Your task to perform on an android device: read, delete, or share a saved page in the chrome app Image 0: 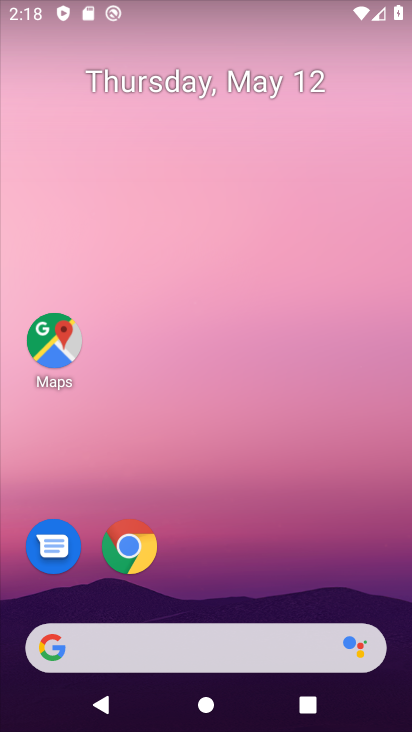
Step 0: click (141, 562)
Your task to perform on an android device: read, delete, or share a saved page in the chrome app Image 1: 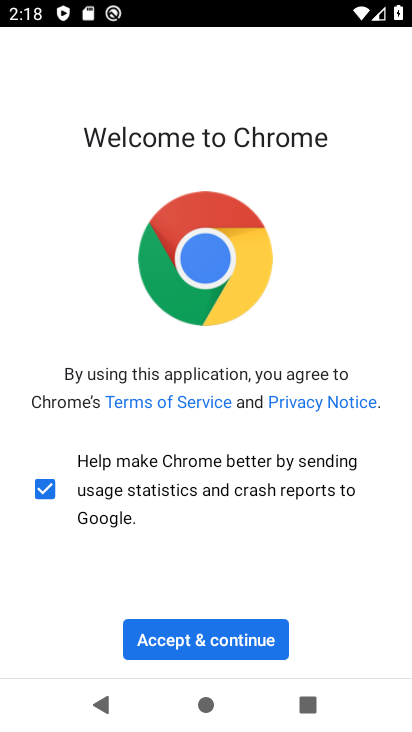
Step 1: click (259, 632)
Your task to perform on an android device: read, delete, or share a saved page in the chrome app Image 2: 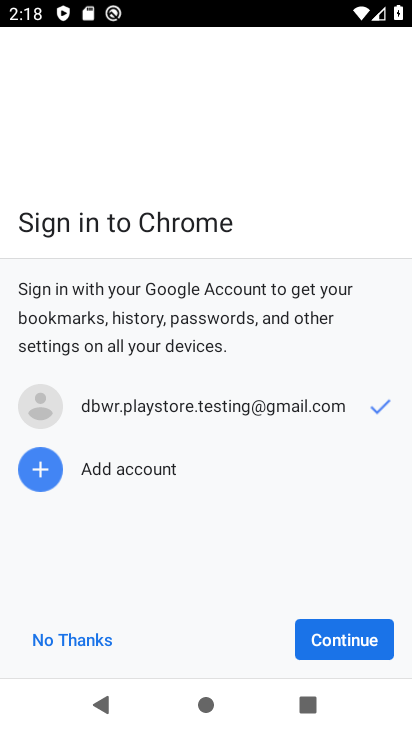
Step 2: click (334, 644)
Your task to perform on an android device: read, delete, or share a saved page in the chrome app Image 3: 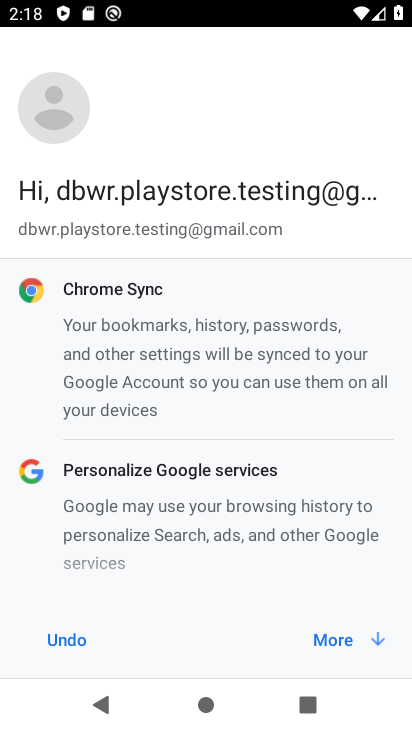
Step 3: click (334, 644)
Your task to perform on an android device: read, delete, or share a saved page in the chrome app Image 4: 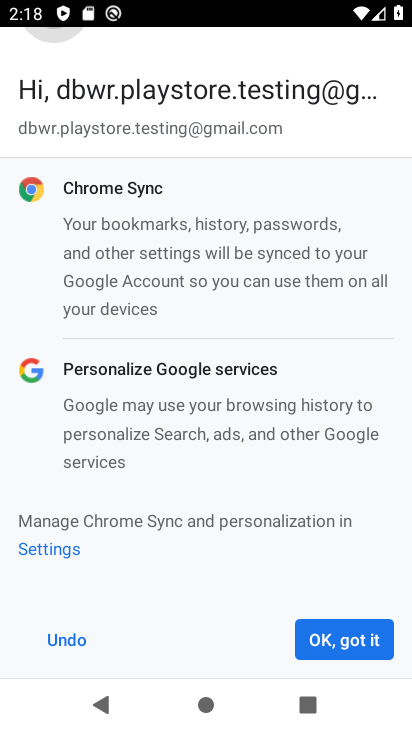
Step 4: click (334, 644)
Your task to perform on an android device: read, delete, or share a saved page in the chrome app Image 5: 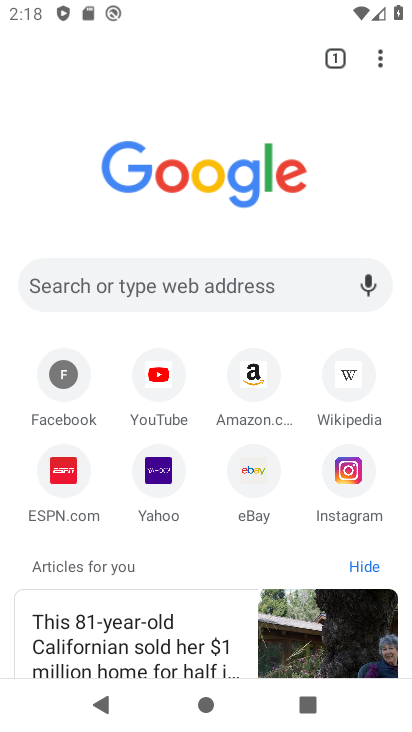
Step 5: drag from (393, 54) to (282, 378)
Your task to perform on an android device: read, delete, or share a saved page in the chrome app Image 6: 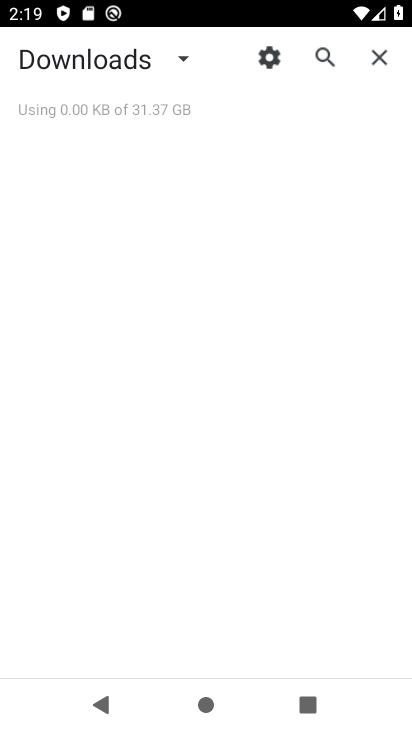
Step 6: click (138, 66)
Your task to perform on an android device: read, delete, or share a saved page in the chrome app Image 7: 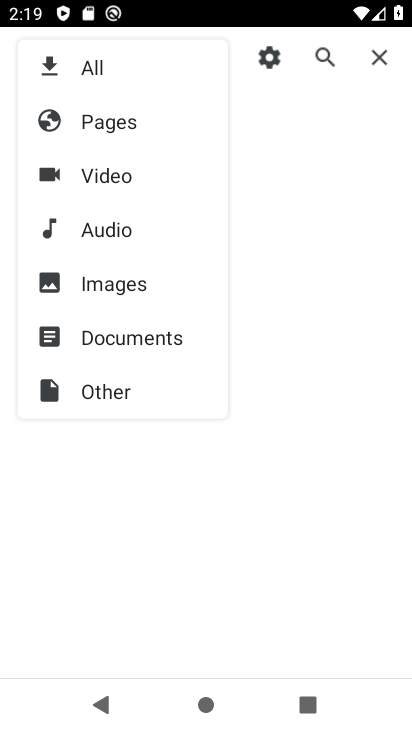
Step 7: click (125, 104)
Your task to perform on an android device: read, delete, or share a saved page in the chrome app Image 8: 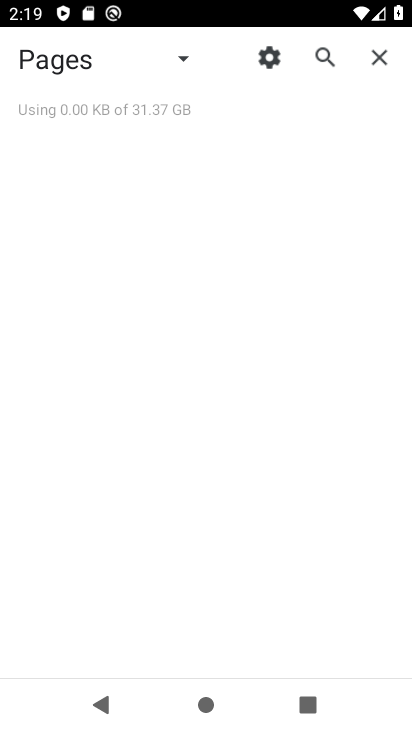
Step 8: task complete